Your task to perform on an android device: Is it going to rain this weekend? Image 0: 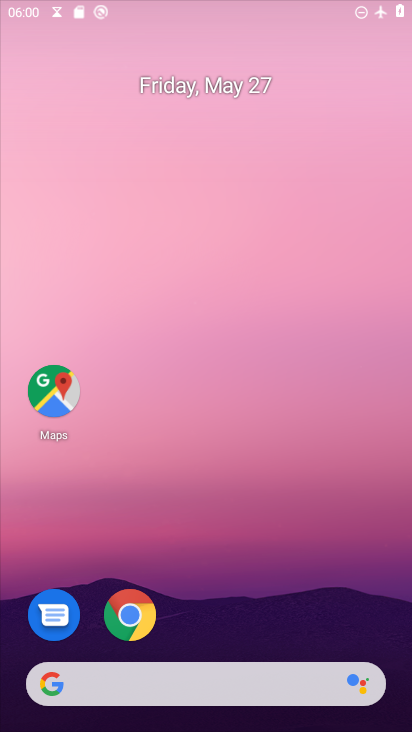
Step 0: drag from (318, 614) to (229, 18)
Your task to perform on an android device: Is it going to rain this weekend? Image 1: 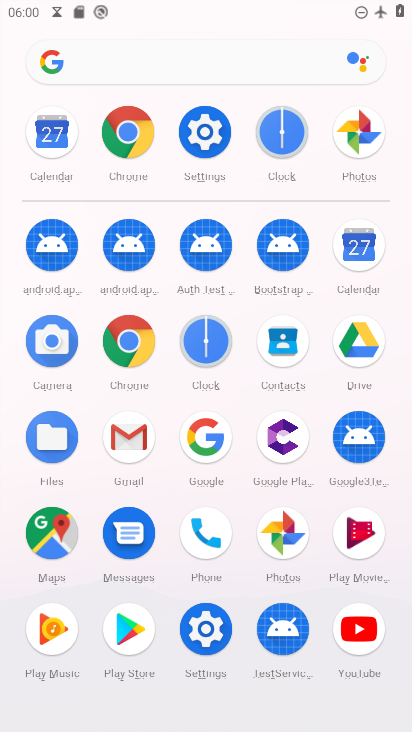
Step 1: click (361, 233)
Your task to perform on an android device: Is it going to rain this weekend? Image 2: 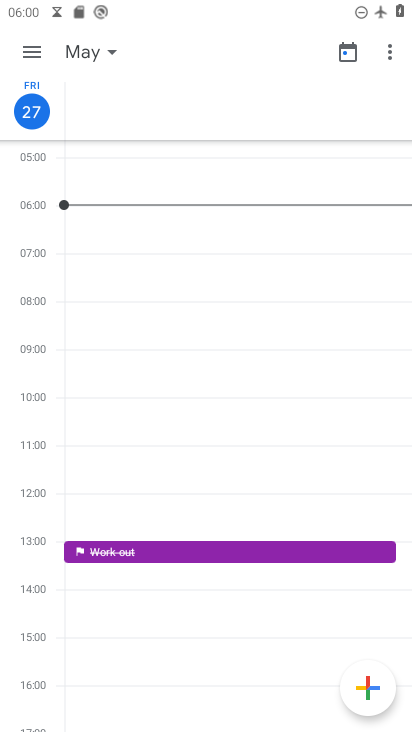
Step 2: press home button
Your task to perform on an android device: Is it going to rain this weekend? Image 3: 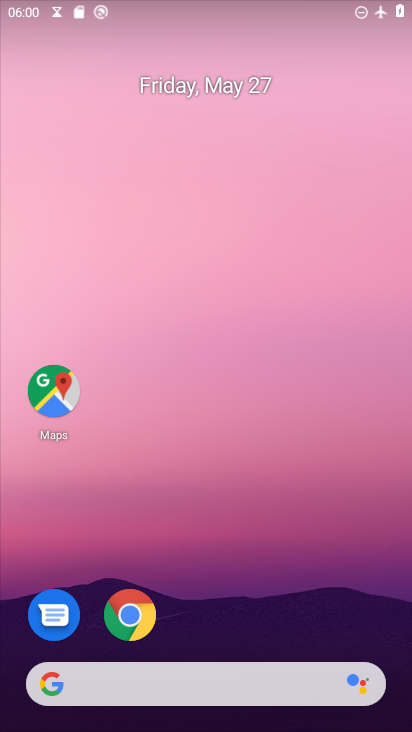
Step 3: drag from (251, 535) to (147, 3)
Your task to perform on an android device: Is it going to rain this weekend? Image 4: 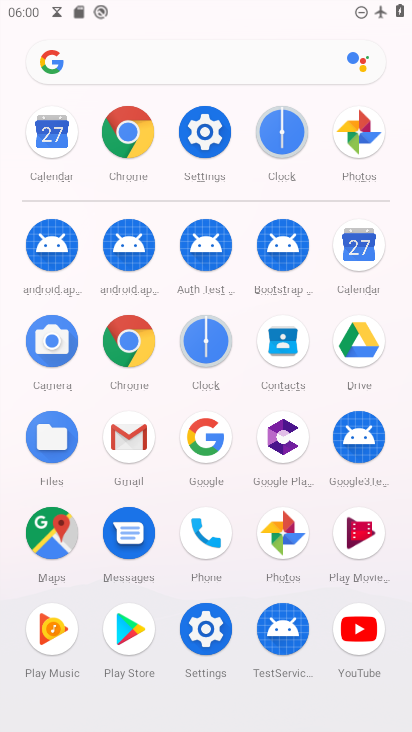
Step 4: click (210, 443)
Your task to perform on an android device: Is it going to rain this weekend? Image 5: 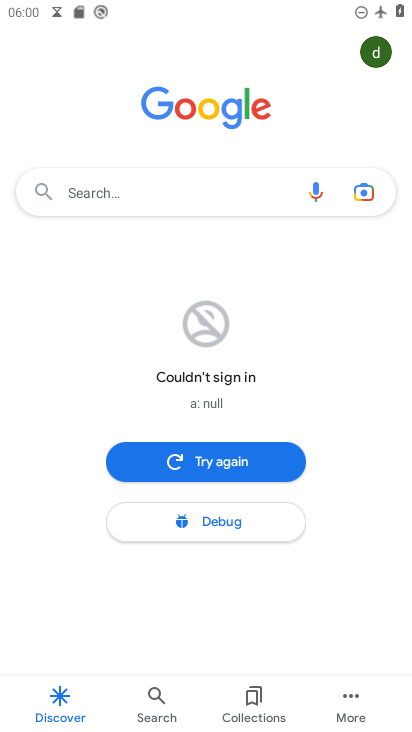
Step 5: click (167, 186)
Your task to perform on an android device: Is it going to rain this weekend? Image 6: 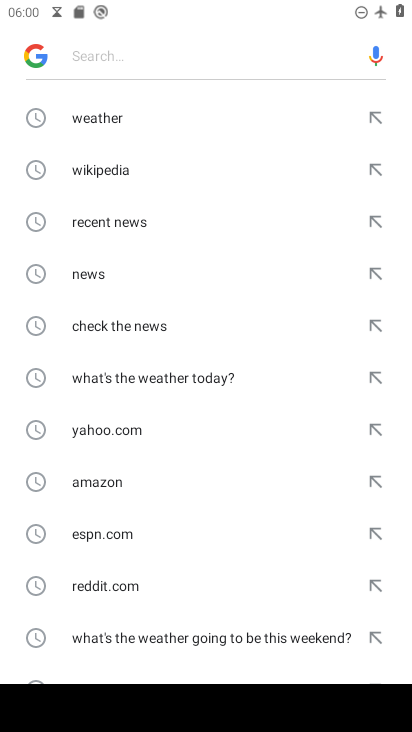
Step 6: click (116, 120)
Your task to perform on an android device: Is it going to rain this weekend? Image 7: 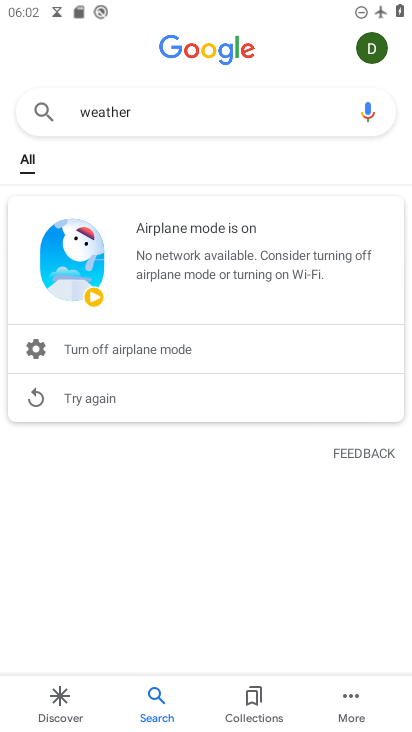
Step 7: task complete